Your task to perform on an android device: toggle data saver in the chrome app Image 0: 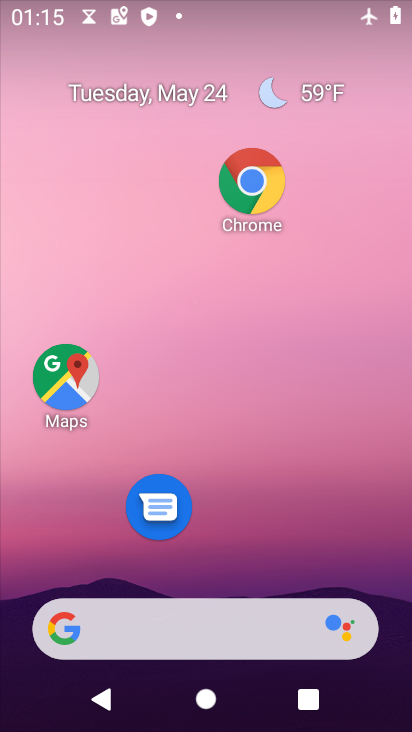
Step 0: drag from (239, 532) to (246, 232)
Your task to perform on an android device: toggle data saver in the chrome app Image 1: 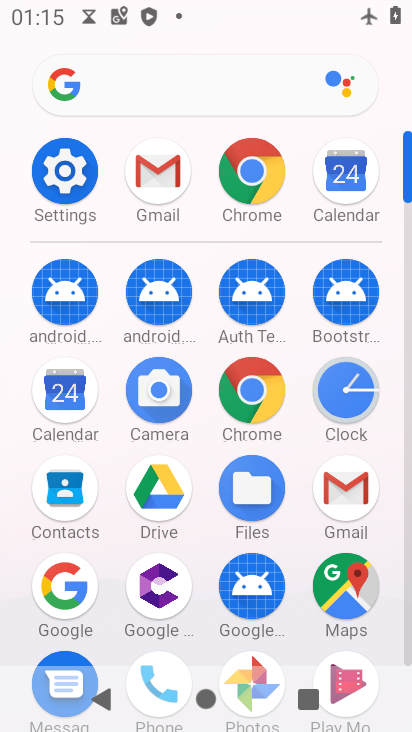
Step 1: click (252, 167)
Your task to perform on an android device: toggle data saver in the chrome app Image 2: 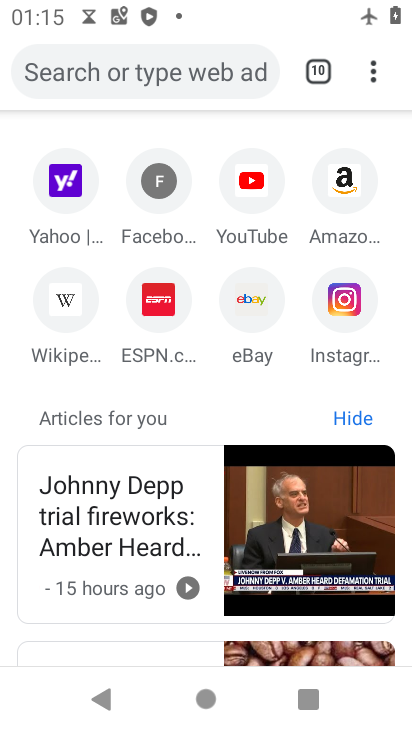
Step 2: click (388, 63)
Your task to perform on an android device: toggle data saver in the chrome app Image 3: 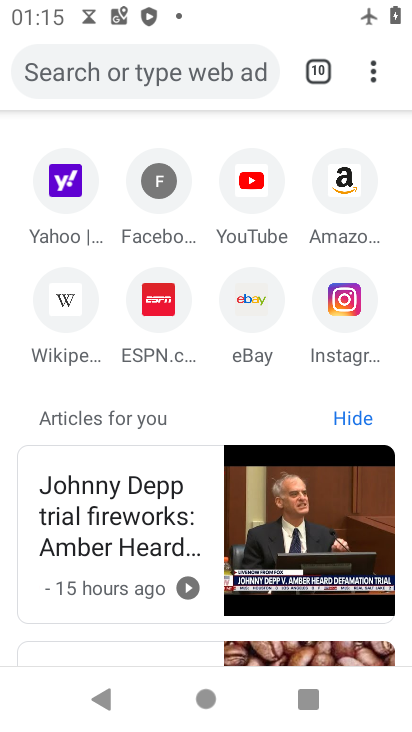
Step 3: click (386, 55)
Your task to perform on an android device: toggle data saver in the chrome app Image 4: 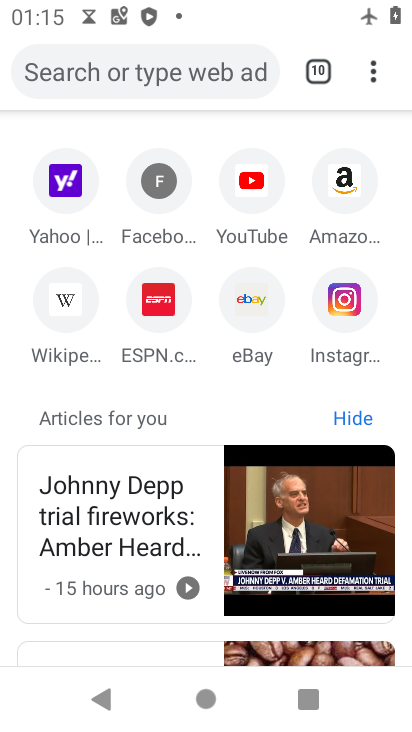
Step 4: click (362, 74)
Your task to perform on an android device: toggle data saver in the chrome app Image 5: 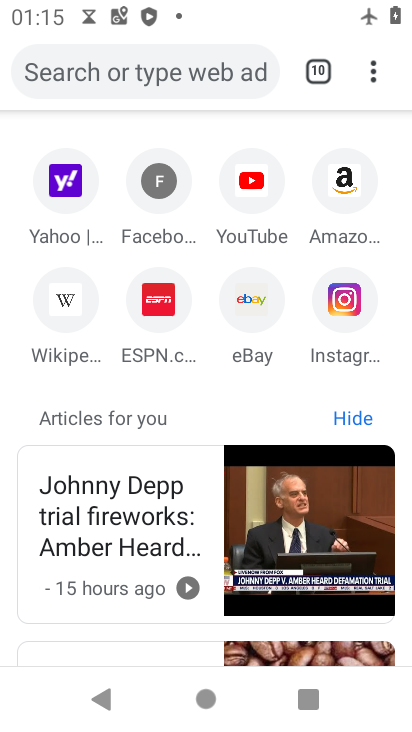
Step 5: click (363, 73)
Your task to perform on an android device: toggle data saver in the chrome app Image 6: 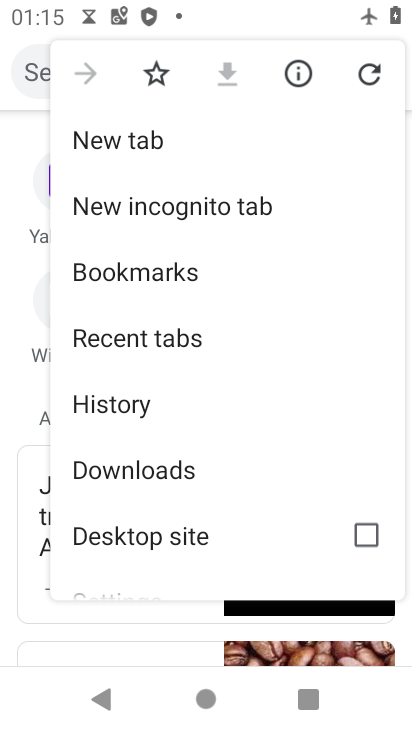
Step 6: drag from (185, 487) to (211, 152)
Your task to perform on an android device: toggle data saver in the chrome app Image 7: 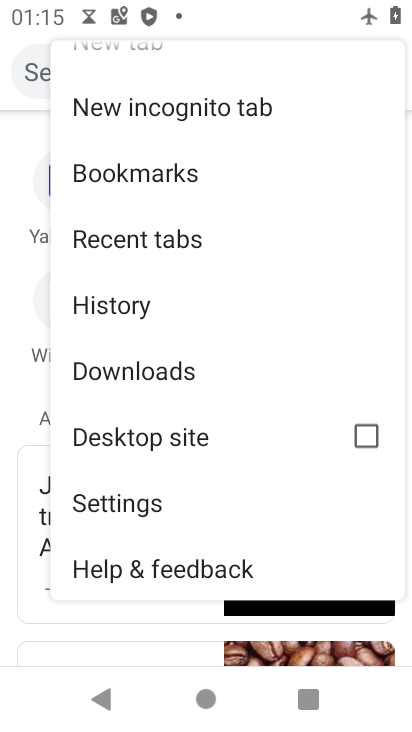
Step 7: click (134, 509)
Your task to perform on an android device: toggle data saver in the chrome app Image 8: 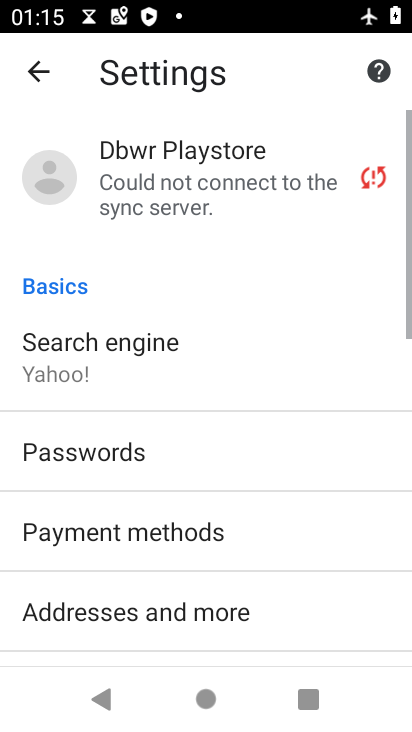
Step 8: drag from (134, 563) to (194, 126)
Your task to perform on an android device: toggle data saver in the chrome app Image 9: 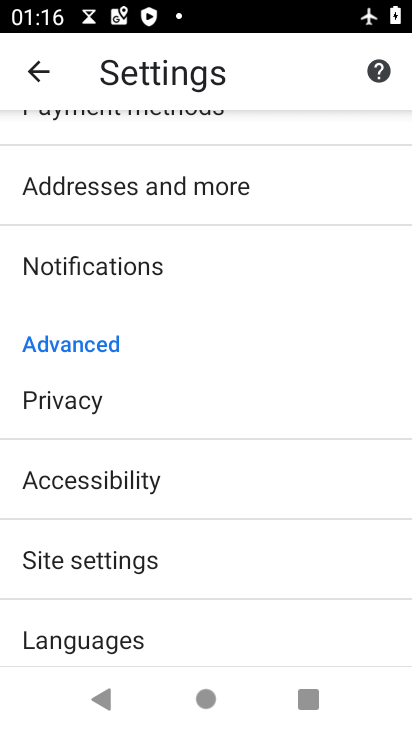
Step 9: drag from (159, 509) to (198, 199)
Your task to perform on an android device: toggle data saver in the chrome app Image 10: 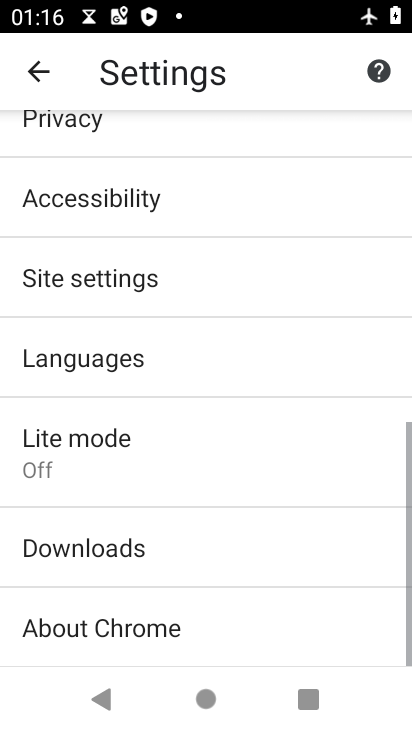
Step 10: drag from (183, 465) to (233, 193)
Your task to perform on an android device: toggle data saver in the chrome app Image 11: 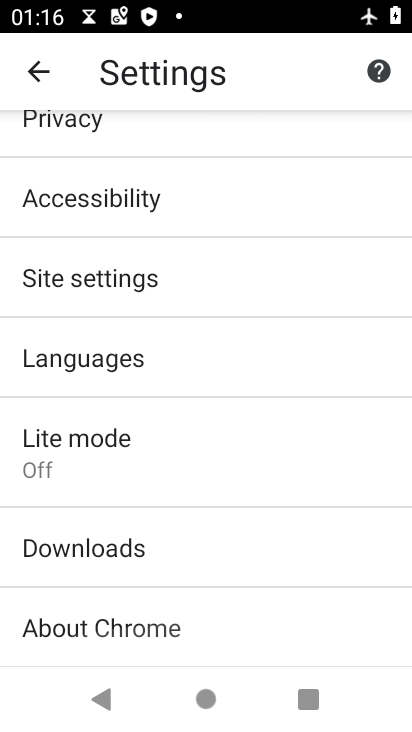
Step 11: drag from (193, 423) to (227, 253)
Your task to perform on an android device: toggle data saver in the chrome app Image 12: 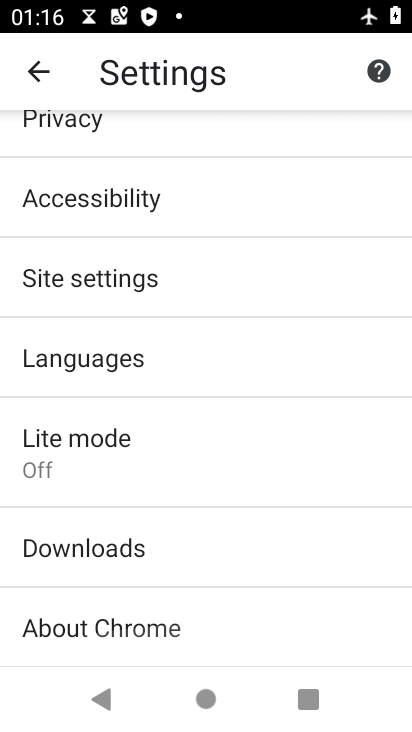
Step 12: drag from (252, 310) to (259, 230)
Your task to perform on an android device: toggle data saver in the chrome app Image 13: 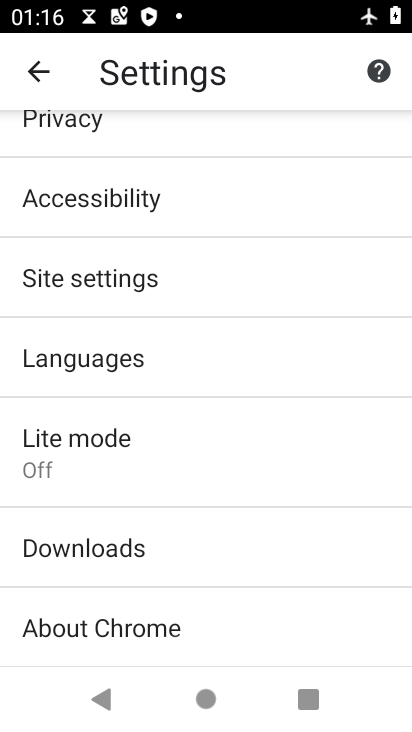
Step 13: drag from (252, 339) to (291, 147)
Your task to perform on an android device: toggle data saver in the chrome app Image 14: 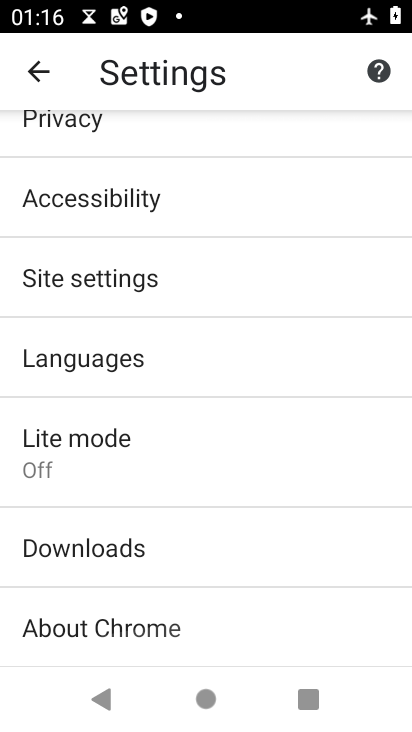
Step 14: drag from (216, 382) to (279, 184)
Your task to perform on an android device: toggle data saver in the chrome app Image 15: 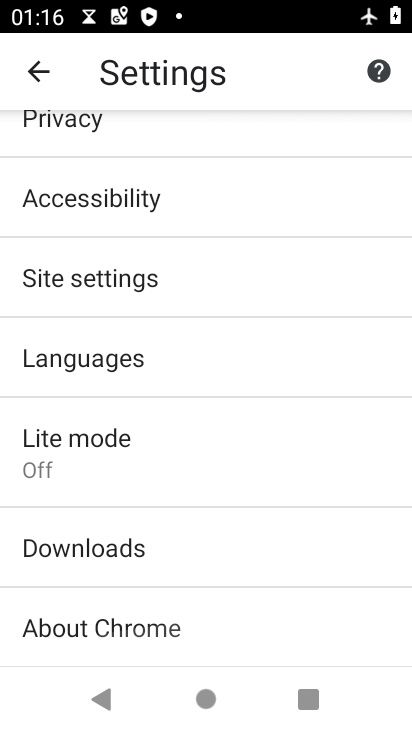
Step 15: drag from (186, 521) to (271, 183)
Your task to perform on an android device: toggle data saver in the chrome app Image 16: 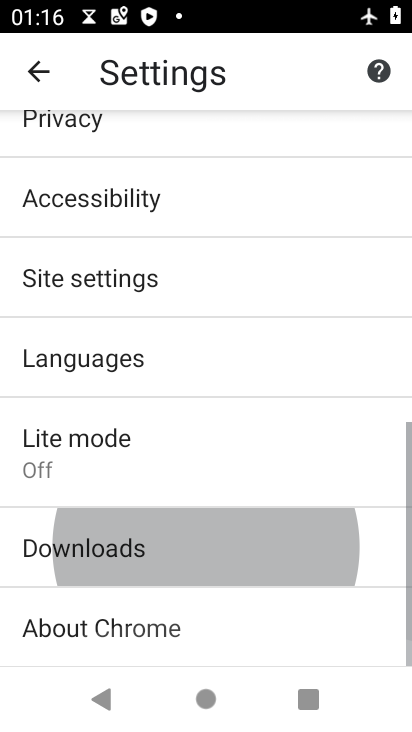
Step 16: drag from (186, 521) to (239, 260)
Your task to perform on an android device: toggle data saver in the chrome app Image 17: 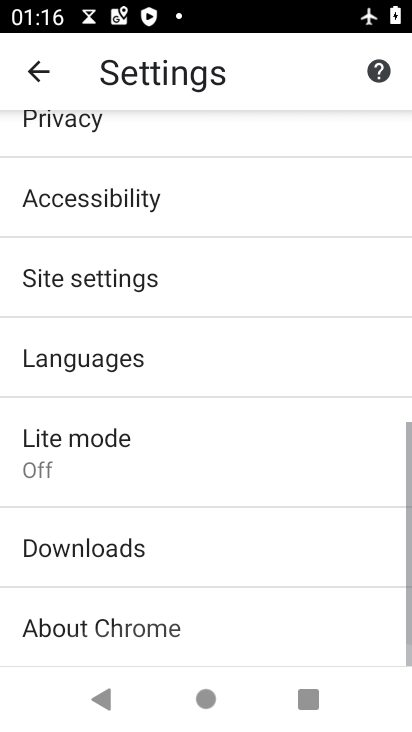
Step 17: drag from (151, 549) to (230, 214)
Your task to perform on an android device: toggle data saver in the chrome app Image 18: 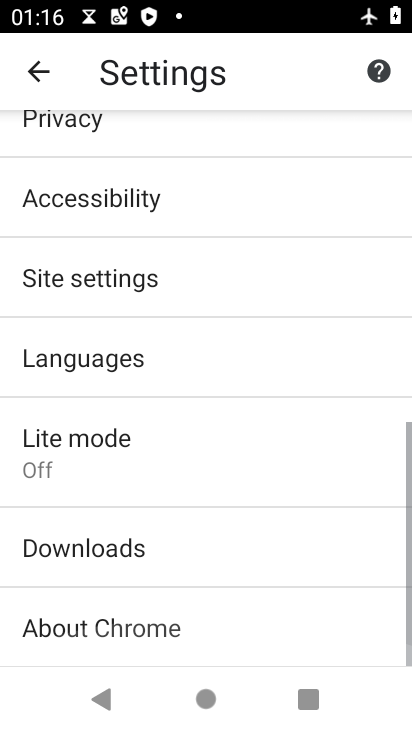
Step 18: drag from (213, 363) to (219, 310)
Your task to perform on an android device: toggle data saver in the chrome app Image 19: 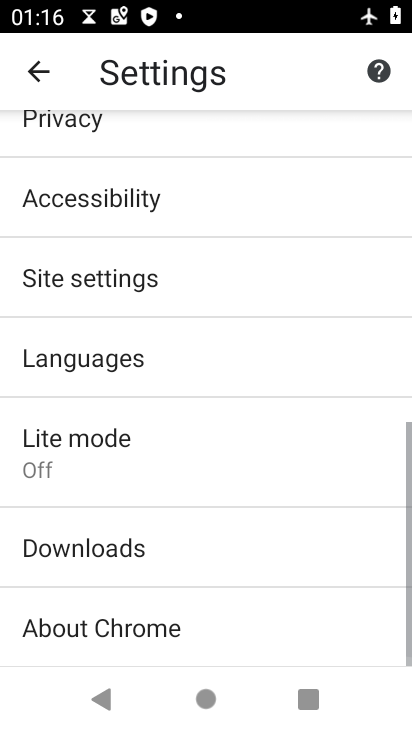
Step 19: drag from (180, 454) to (200, 285)
Your task to perform on an android device: toggle data saver in the chrome app Image 20: 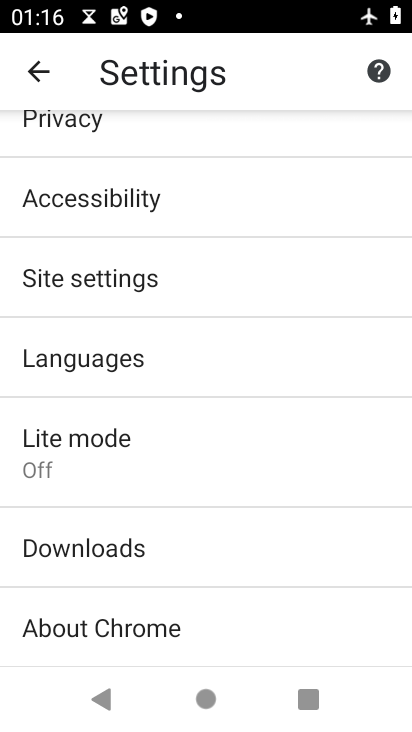
Step 20: click (192, 282)
Your task to perform on an android device: toggle data saver in the chrome app Image 21: 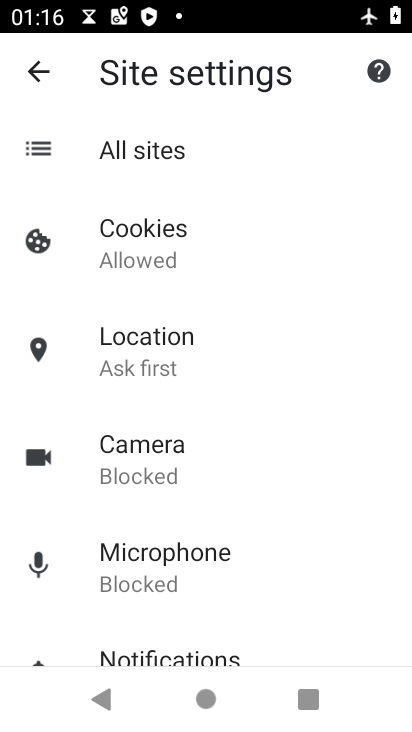
Step 21: click (33, 64)
Your task to perform on an android device: toggle data saver in the chrome app Image 22: 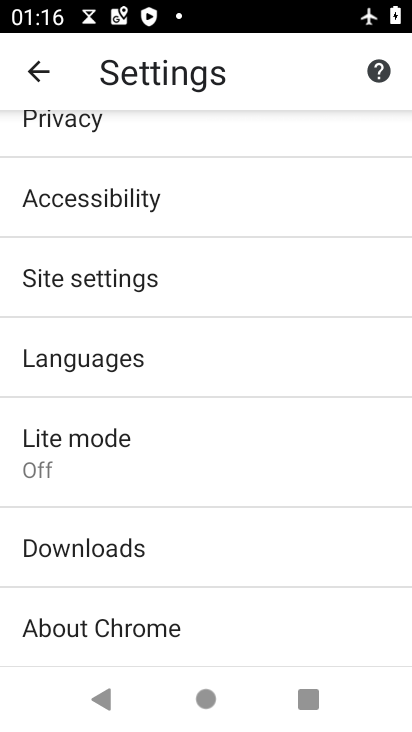
Step 22: click (36, 63)
Your task to perform on an android device: toggle data saver in the chrome app Image 23: 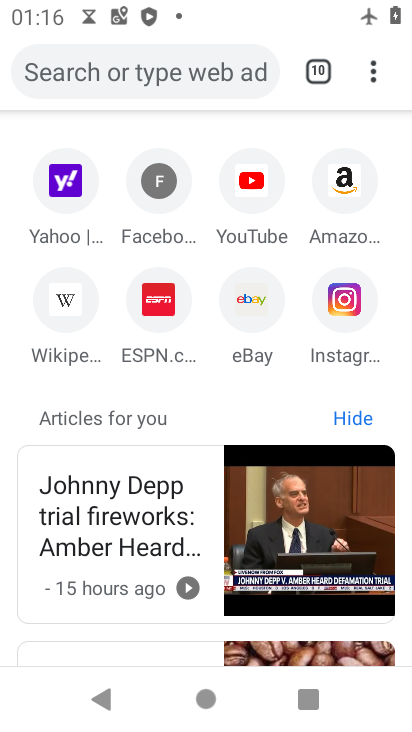
Step 23: click (370, 58)
Your task to perform on an android device: toggle data saver in the chrome app Image 24: 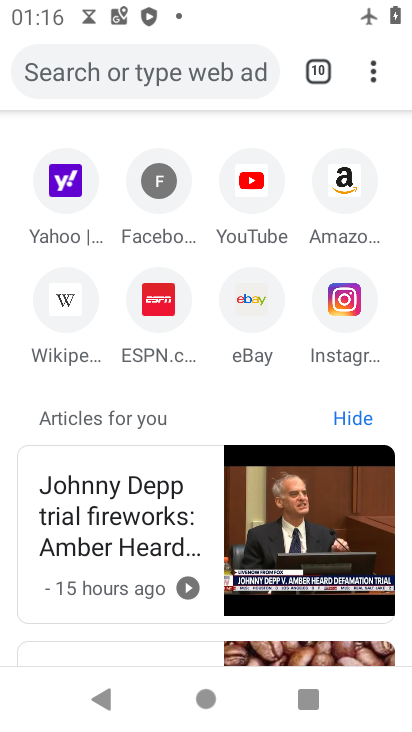
Step 24: click (365, 73)
Your task to perform on an android device: toggle data saver in the chrome app Image 25: 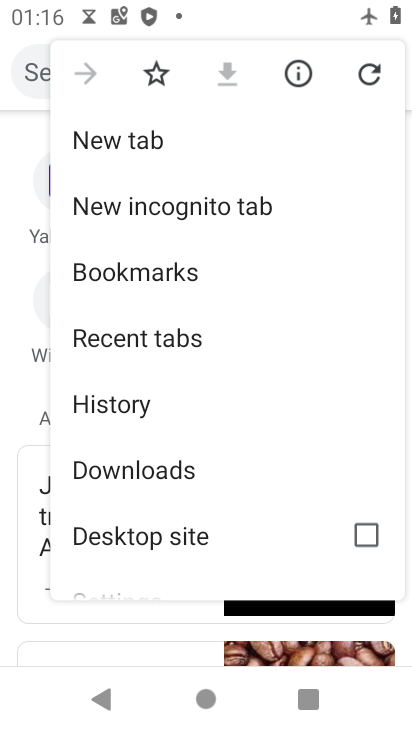
Step 25: drag from (122, 476) to (183, 159)
Your task to perform on an android device: toggle data saver in the chrome app Image 26: 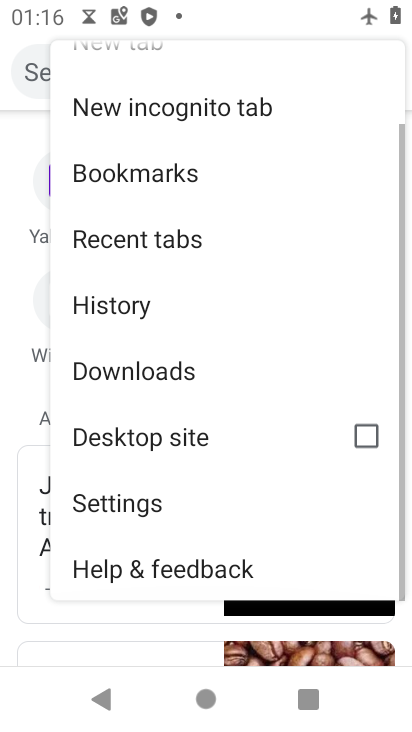
Step 26: drag from (214, 358) to (222, 295)
Your task to perform on an android device: toggle data saver in the chrome app Image 27: 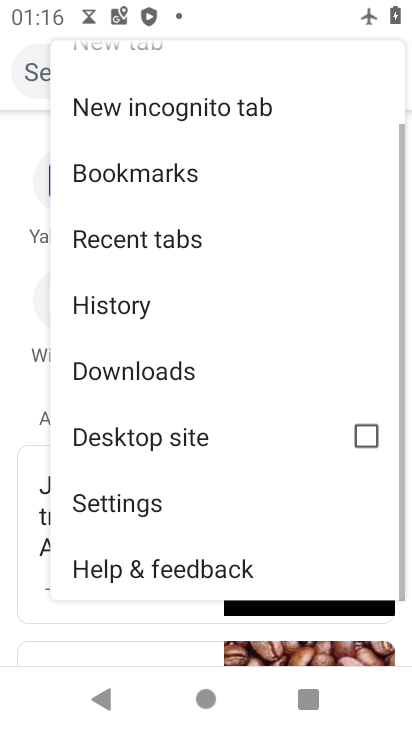
Step 27: click (165, 496)
Your task to perform on an android device: toggle data saver in the chrome app Image 28: 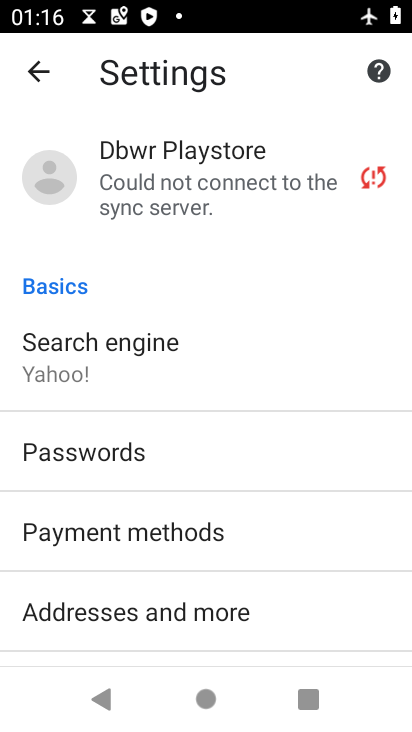
Step 28: drag from (209, 553) to (212, 207)
Your task to perform on an android device: toggle data saver in the chrome app Image 29: 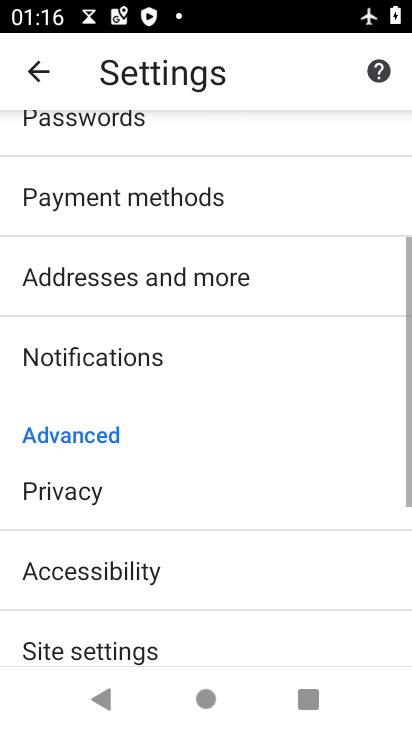
Step 29: drag from (194, 437) to (201, 322)
Your task to perform on an android device: toggle data saver in the chrome app Image 30: 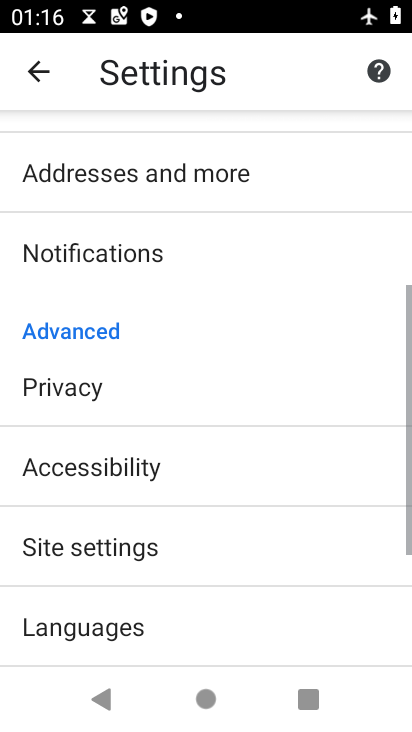
Step 30: drag from (180, 501) to (229, 298)
Your task to perform on an android device: toggle data saver in the chrome app Image 31: 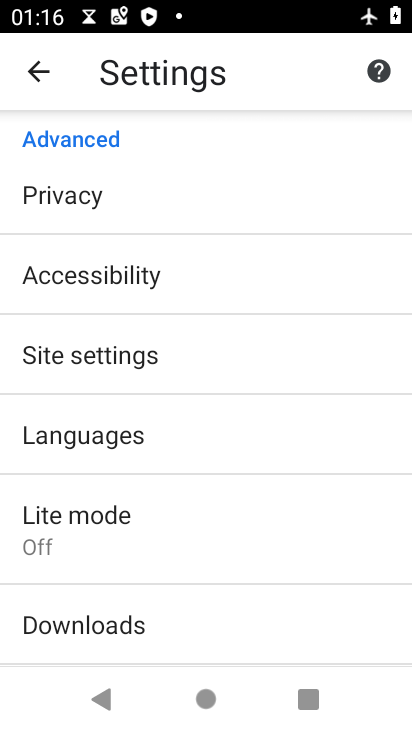
Step 31: click (191, 449)
Your task to perform on an android device: toggle data saver in the chrome app Image 32: 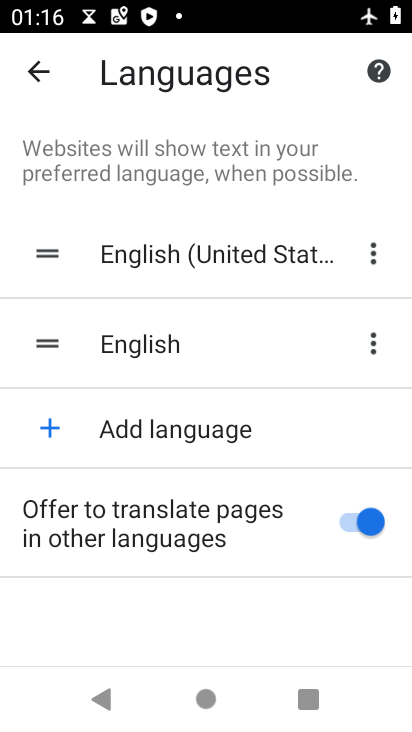
Step 32: click (22, 55)
Your task to perform on an android device: toggle data saver in the chrome app Image 33: 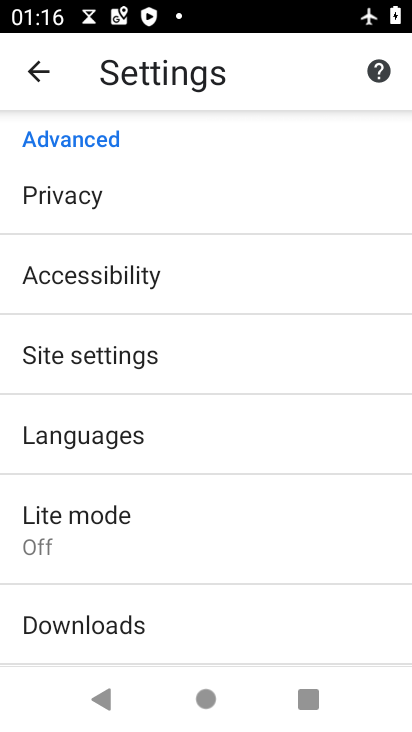
Step 33: click (118, 531)
Your task to perform on an android device: toggle data saver in the chrome app Image 34: 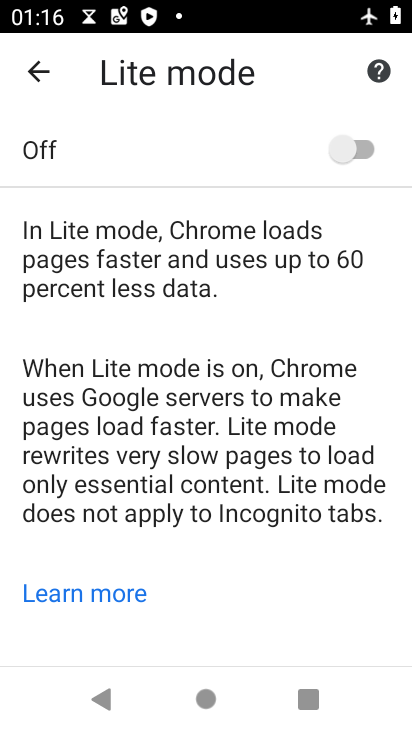
Step 34: task complete